Your task to perform on an android device: open a new tab in the chrome app Image 0: 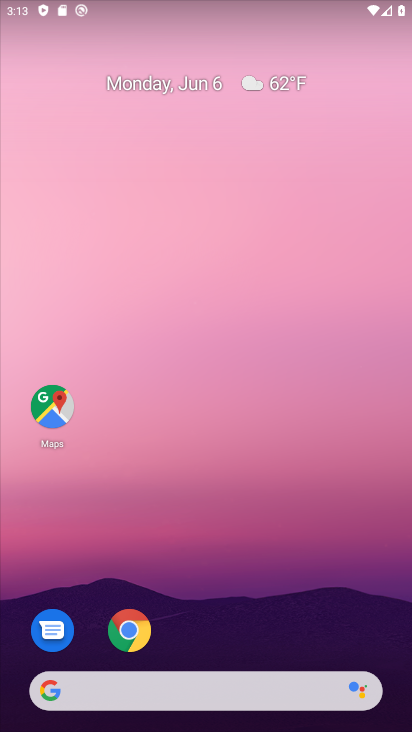
Step 0: press home button
Your task to perform on an android device: open a new tab in the chrome app Image 1: 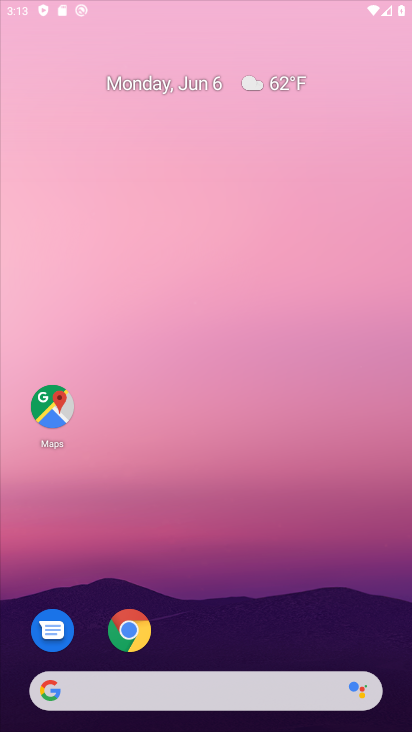
Step 1: drag from (262, 629) to (254, 435)
Your task to perform on an android device: open a new tab in the chrome app Image 2: 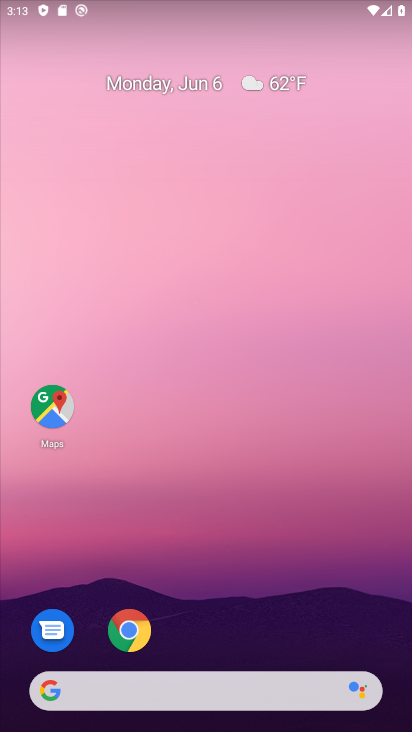
Step 2: click (115, 625)
Your task to perform on an android device: open a new tab in the chrome app Image 3: 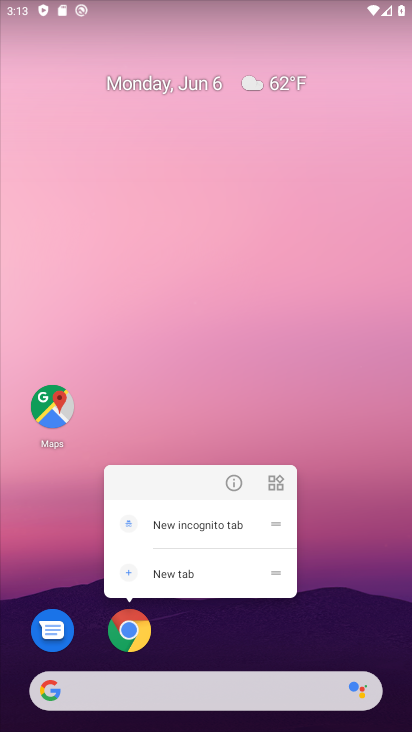
Step 3: click (115, 625)
Your task to perform on an android device: open a new tab in the chrome app Image 4: 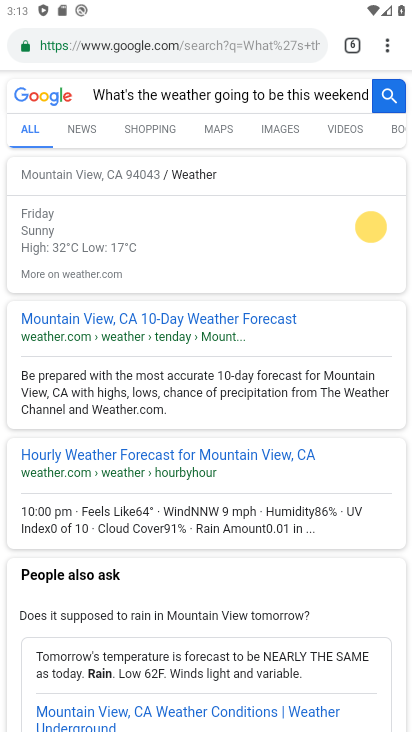
Step 4: task complete